Your task to perform on an android device: turn pop-ups off in chrome Image 0: 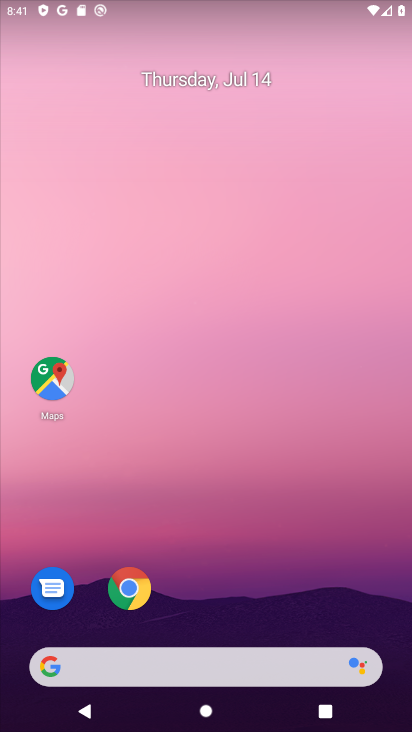
Step 0: press back button
Your task to perform on an android device: turn pop-ups off in chrome Image 1: 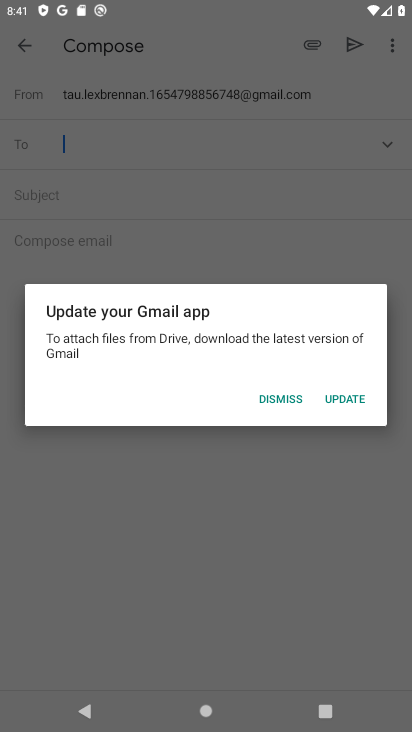
Step 1: click (280, 395)
Your task to perform on an android device: turn pop-ups off in chrome Image 2: 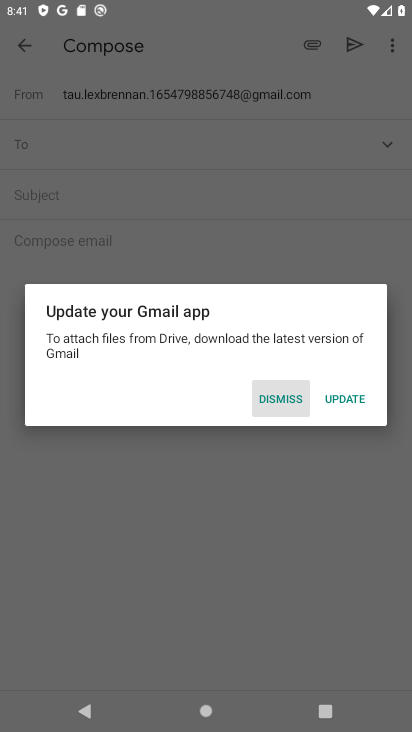
Step 2: click (280, 394)
Your task to perform on an android device: turn pop-ups off in chrome Image 3: 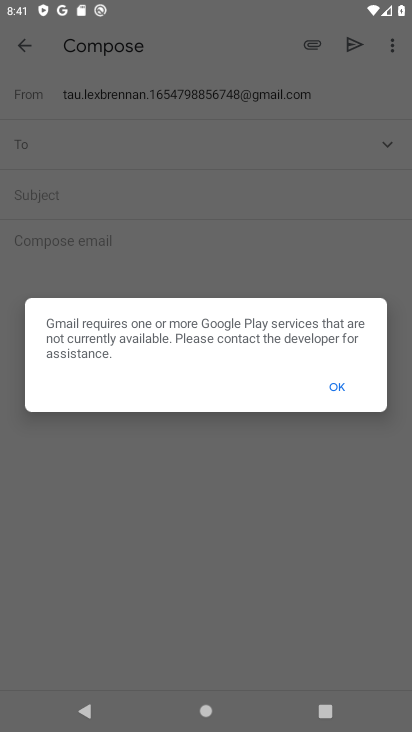
Step 3: click (281, 393)
Your task to perform on an android device: turn pop-ups off in chrome Image 4: 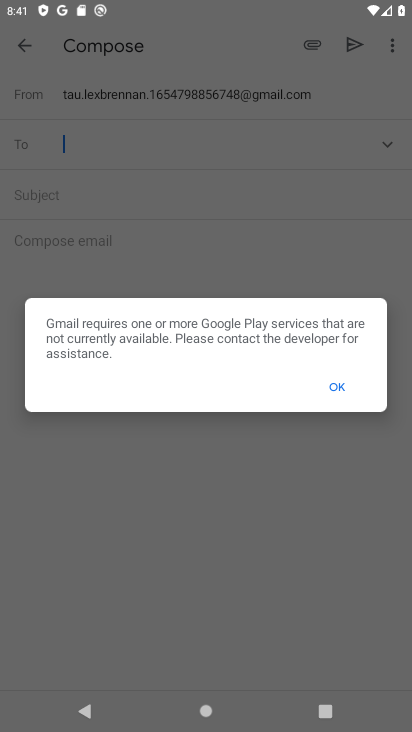
Step 4: click (281, 393)
Your task to perform on an android device: turn pop-ups off in chrome Image 5: 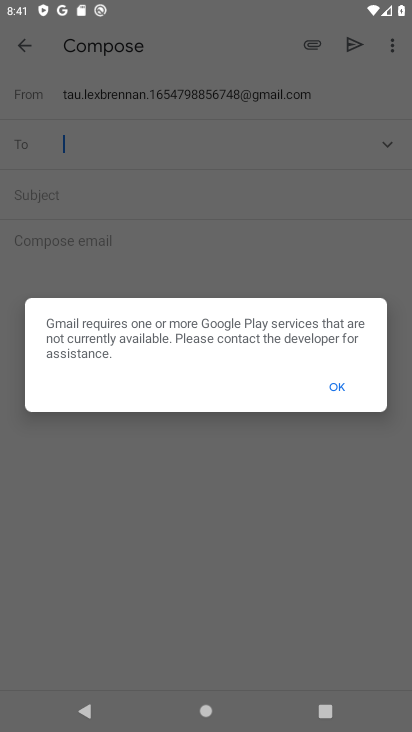
Step 5: click (352, 393)
Your task to perform on an android device: turn pop-ups off in chrome Image 6: 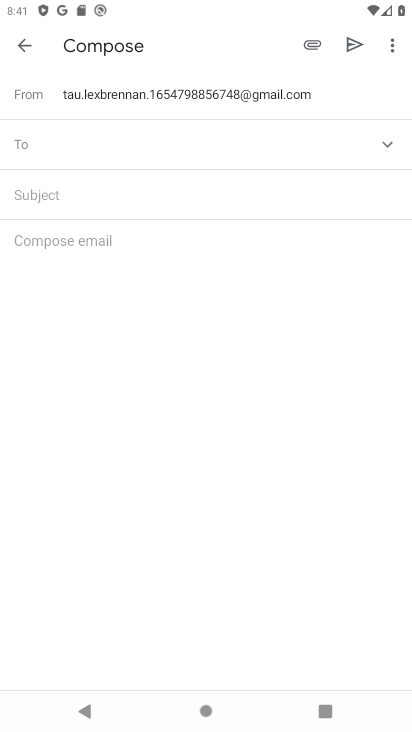
Step 6: click (26, 51)
Your task to perform on an android device: turn pop-ups off in chrome Image 7: 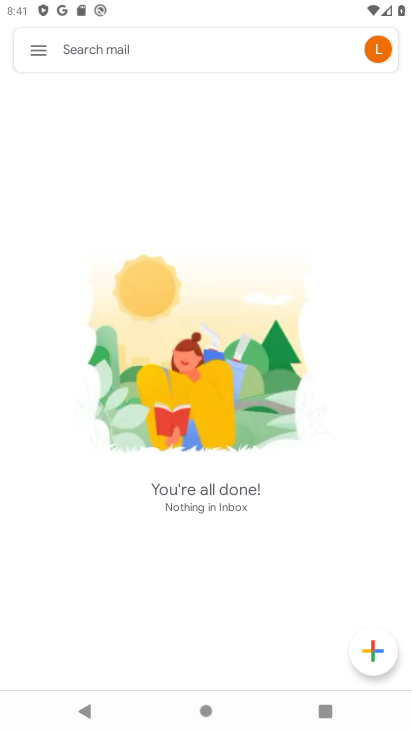
Step 7: press back button
Your task to perform on an android device: turn pop-ups off in chrome Image 8: 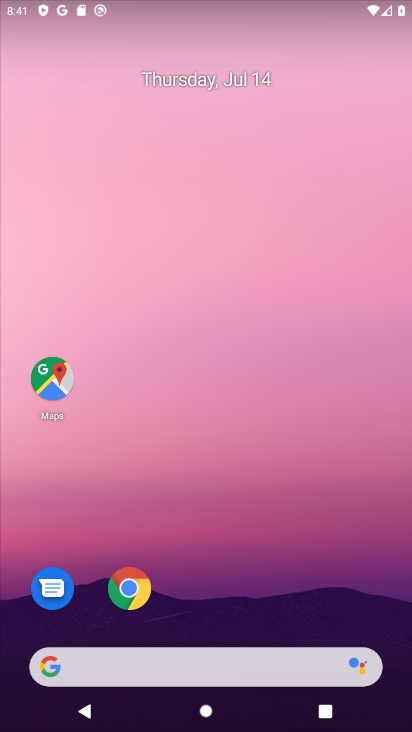
Step 8: drag from (272, 530) to (193, 72)
Your task to perform on an android device: turn pop-ups off in chrome Image 9: 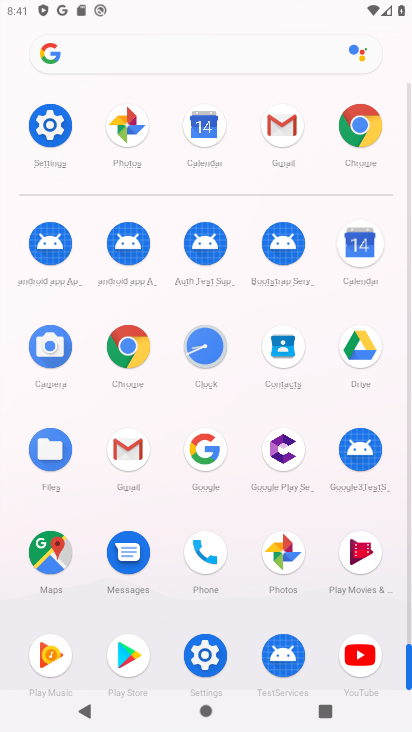
Step 9: click (343, 122)
Your task to perform on an android device: turn pop-ups off in chrome Image 10: 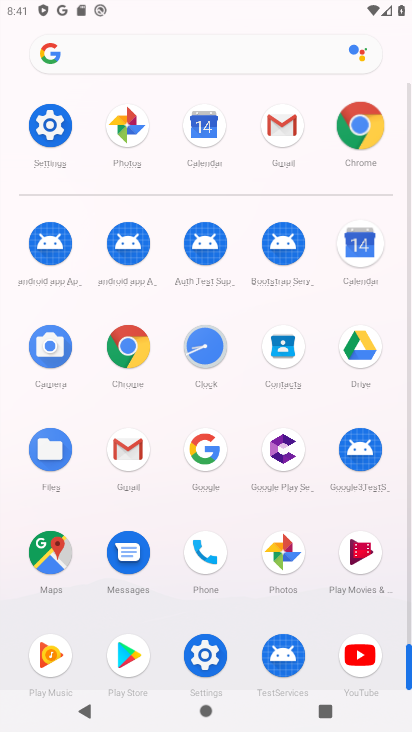
Step 10: click (343, 122)
Your task to perform on an android device: turn pop-ups off in chrome Image 11: 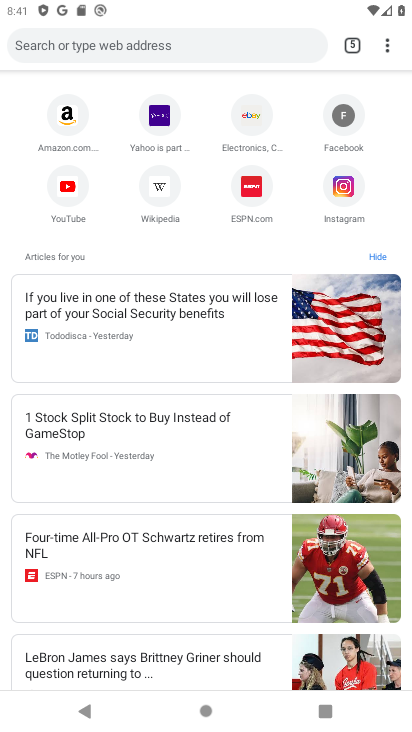
Step 11: drag from (382, 44) to (207, 385)
Your task to perform on an android device: turn pop-ups off in chrome Image 12: 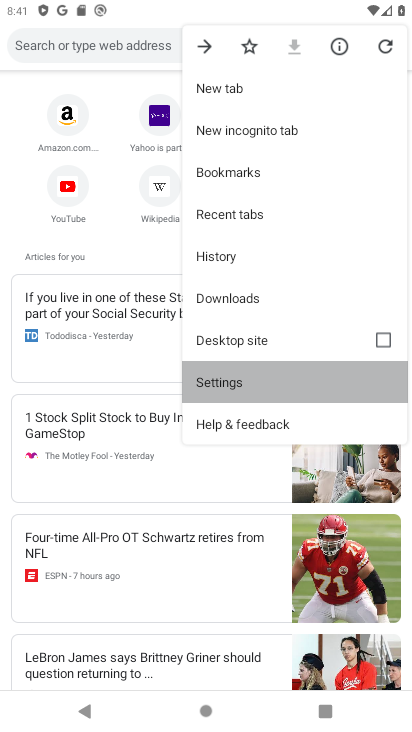
Step 12: click (207, 389)
Your task to perform on an android device: turn pop-ups off in chrome Image 13: 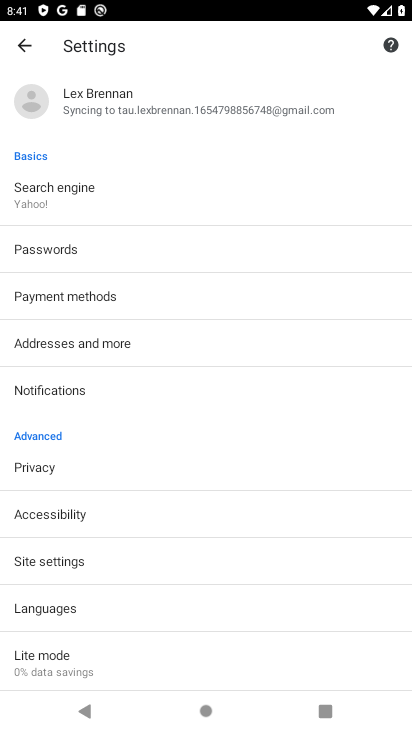
Step 13: drag from (76, 645) to (80, 492)
Your task to perform on an android device: turn pop-ups off in chrome Image 14: 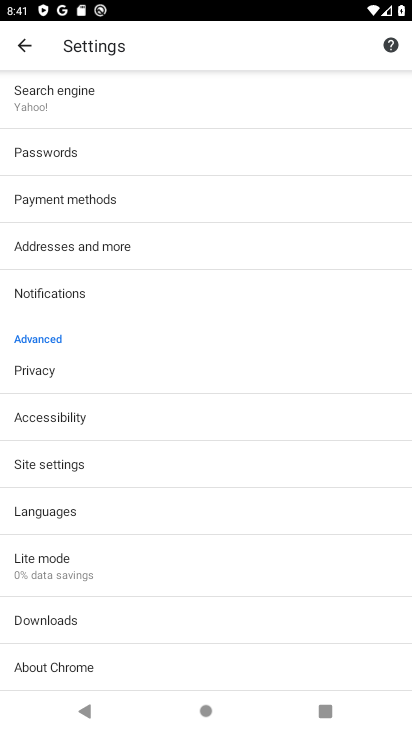
Step 14: click (35, 558)
Your task to perform on an android device: turn pop-ups off in chrome Image 15: 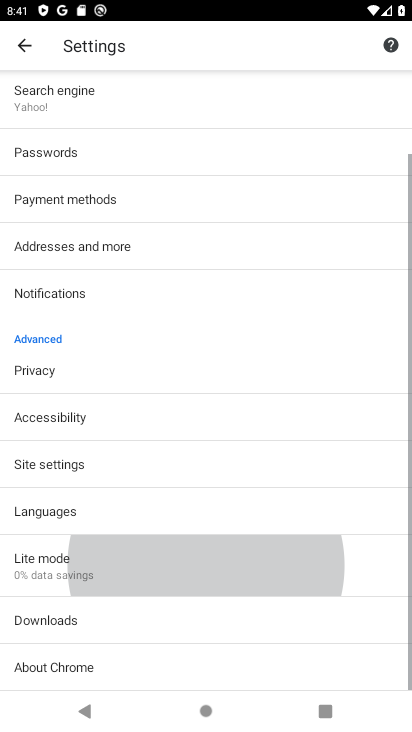
Step 15: click (41, 558)
Your task to perform on an android device: turn pop-ups off in chrome Image 16: 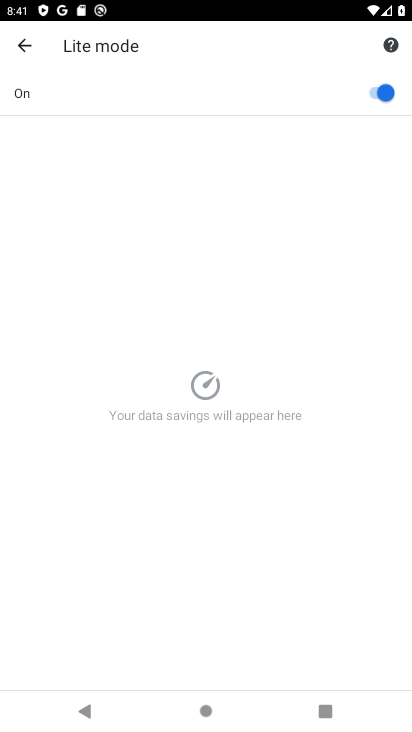
Step 16: click (22, 43)
Your task to perform on an android device: turn pop-ups off in chrome Image 17: 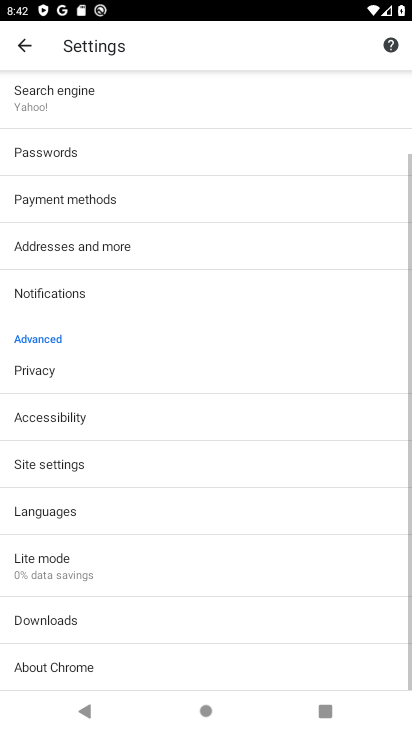
Step 17: click (35, 461)
Your task to perform on an android device: turn pop-ups off in chrome Image 18: 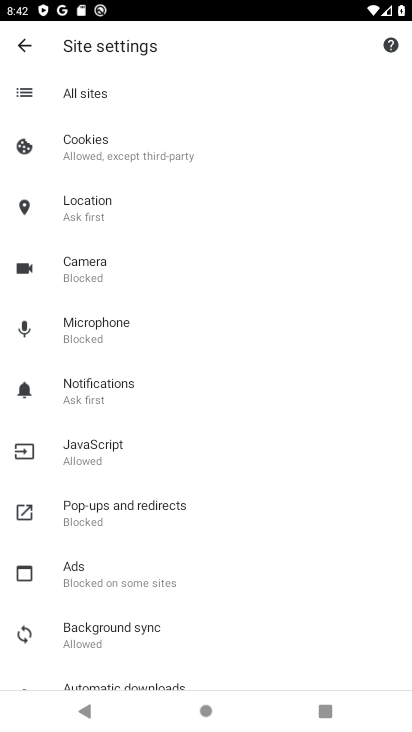
Step 18: click (98, 506)
Your task to perform on an android device: turn pop-ups off in chrome Image 19: 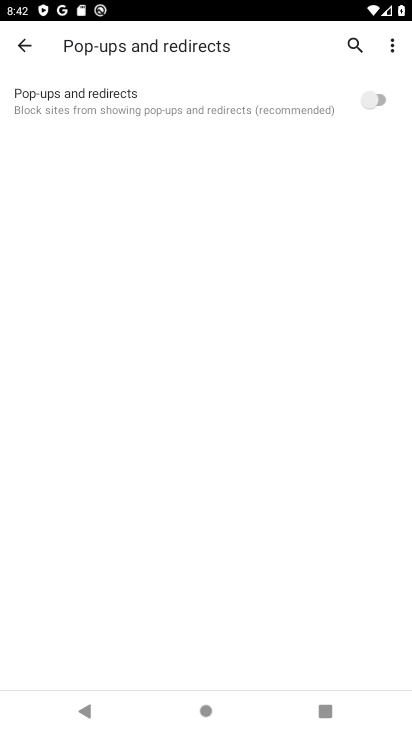
Step 19: task complete